Your task to perform on an android device: View the shopping cart on target.com. Search for acer nitro on target.com, select the first entry, add it to the cart, then select checkout. Image 0: 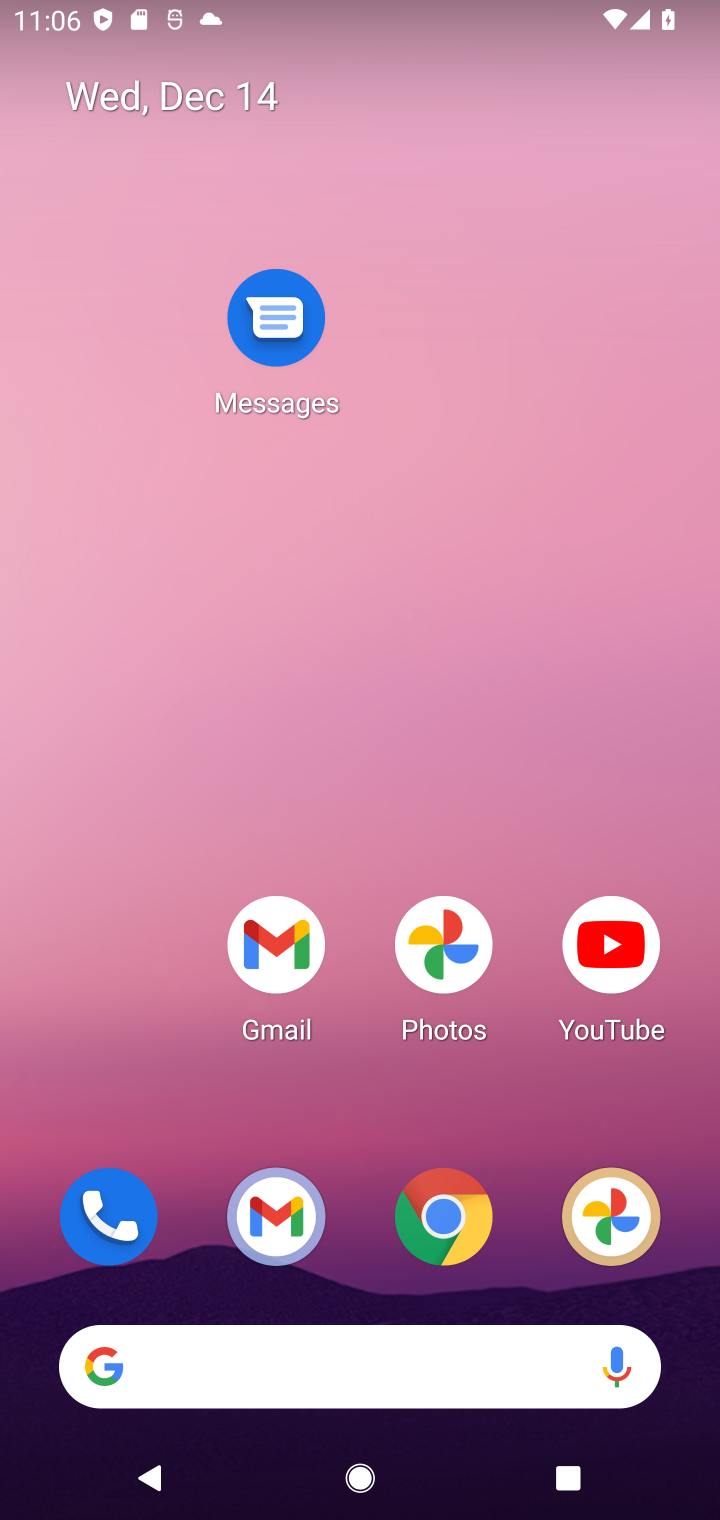
Step 0: drag from (390, 1035) to (351, 493)
Your task to perform on an android device: View the shopping cart on target.com. Search for acer nitro on target.com, select the first entry, add it to the cart, then select checkout. Image 1: 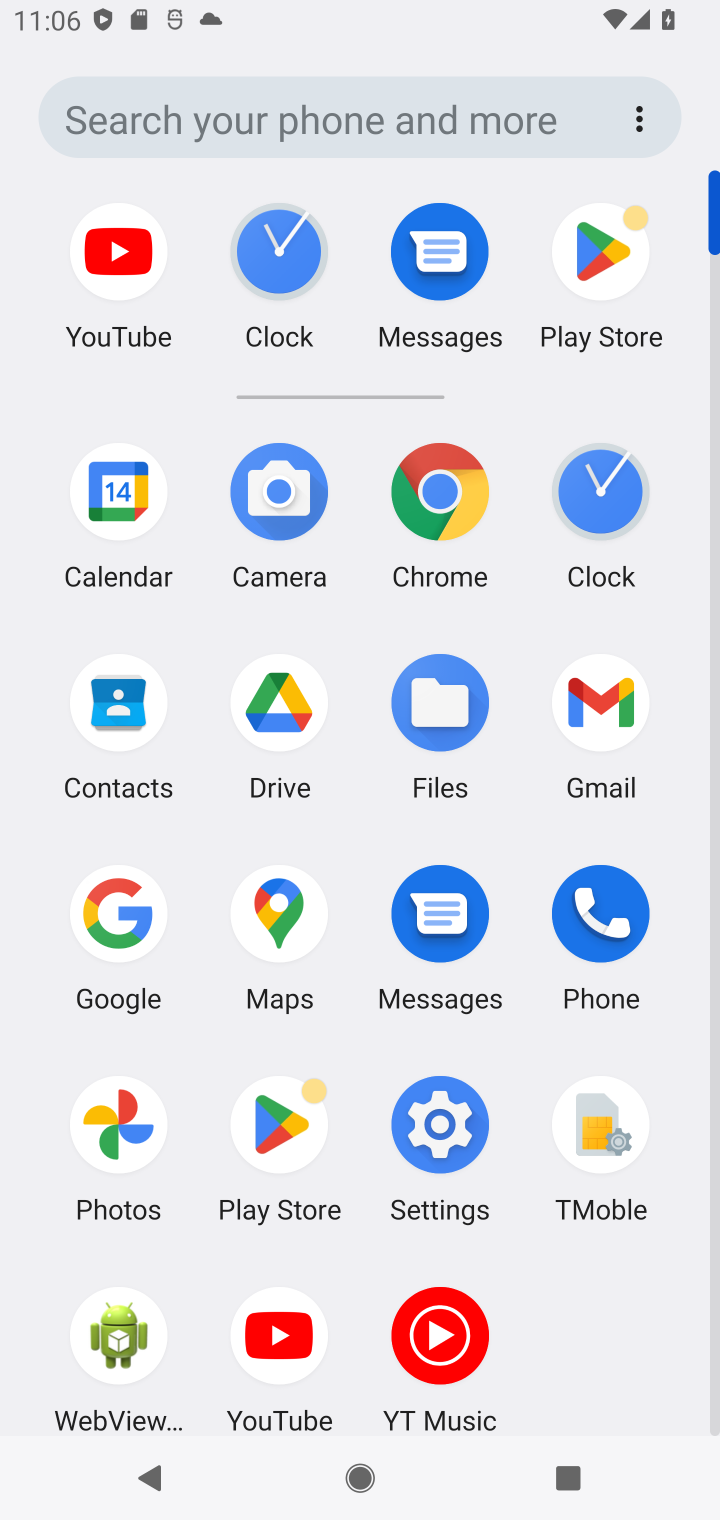
Step 1: click (127, 907)
Your task to perform on an android device: View the shopping cart on target.com. Search for acer nitro on target.com, select the first entry, add it to the cart, then select checkout. Image 2: 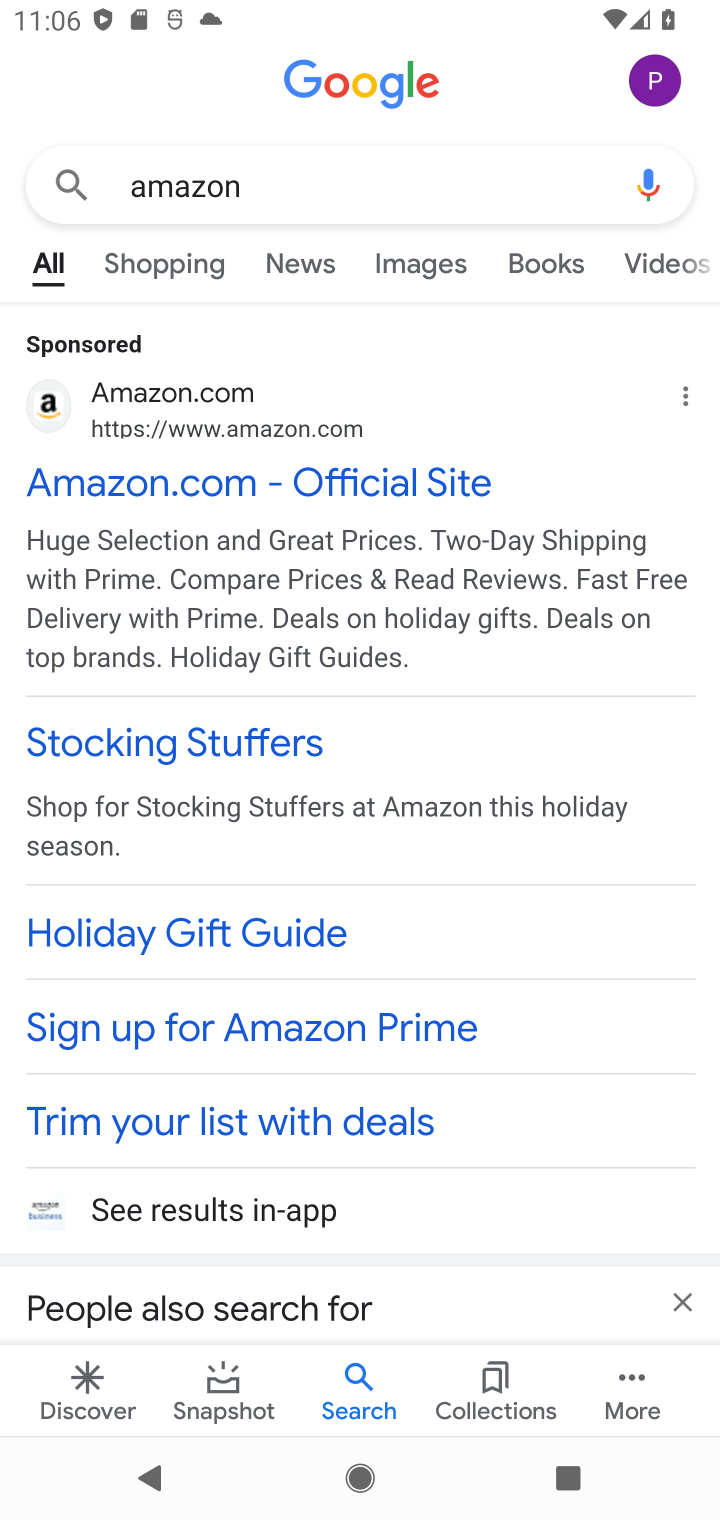
Step 2: click (235, 175)
Your task to perform on an android device: View the shopping cart on target.com. Search for acer nitro on target.com, select the first entry, add it to the cart, then select checkout. Image 3: 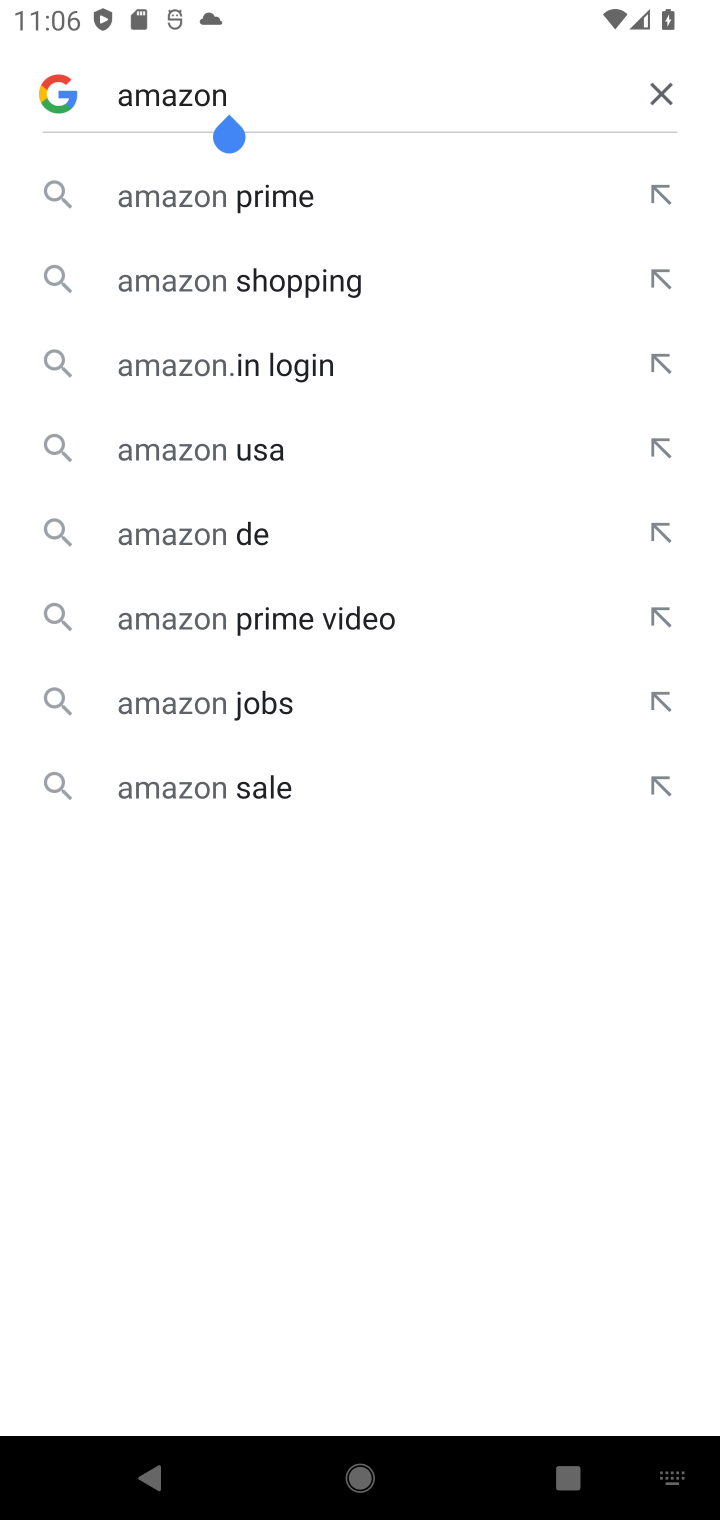
Step 3: click (649, 87)
Your task to perform on an android device: View the shopping cart on target.com. Search for acer nitro on target.com, select the first entry, add it to the cart, then select checkout. Image 4: 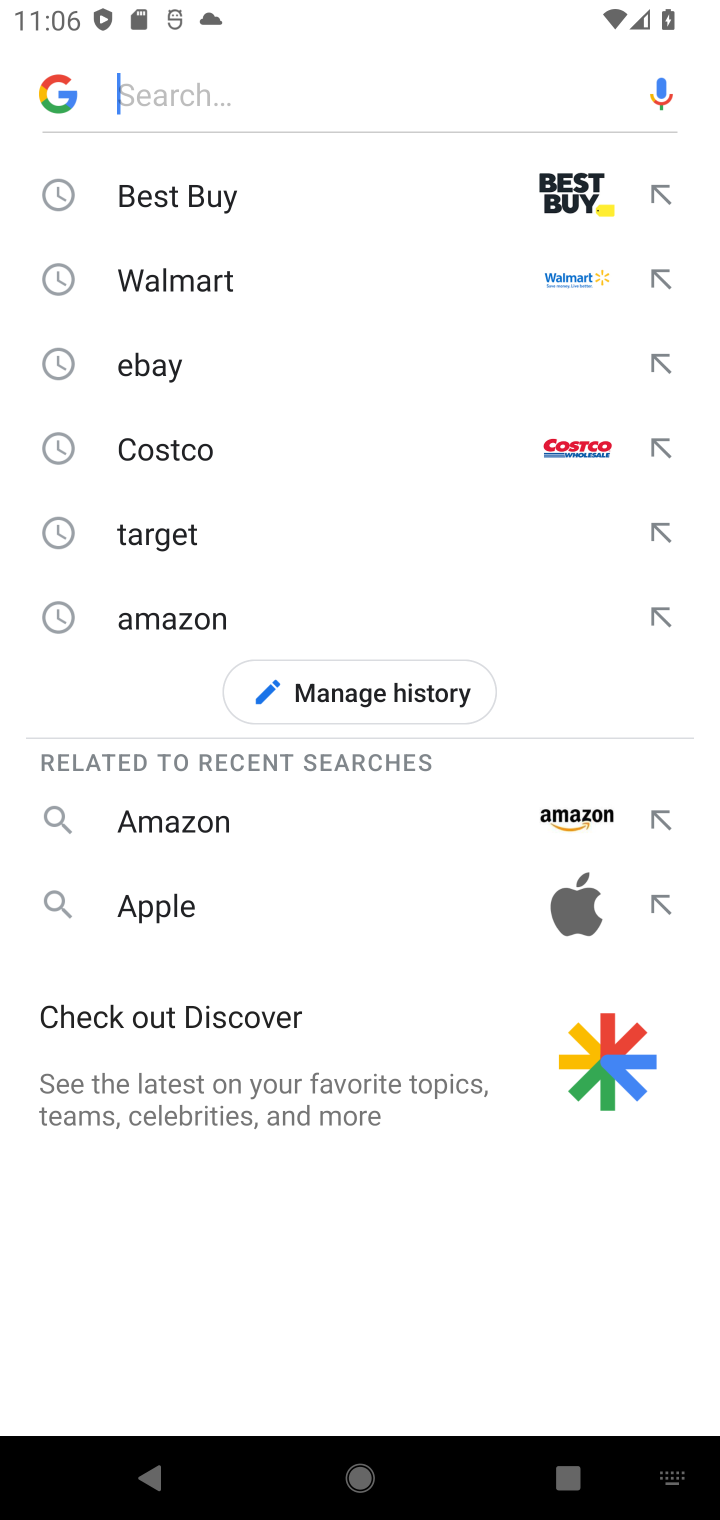
Step 4: click (153, 523)
Your task to perform on an android device: View the shopping cart on target.com. Search for acer nitro on target.com, select the first entry, add it to the cart, then select checkout. Image 5: 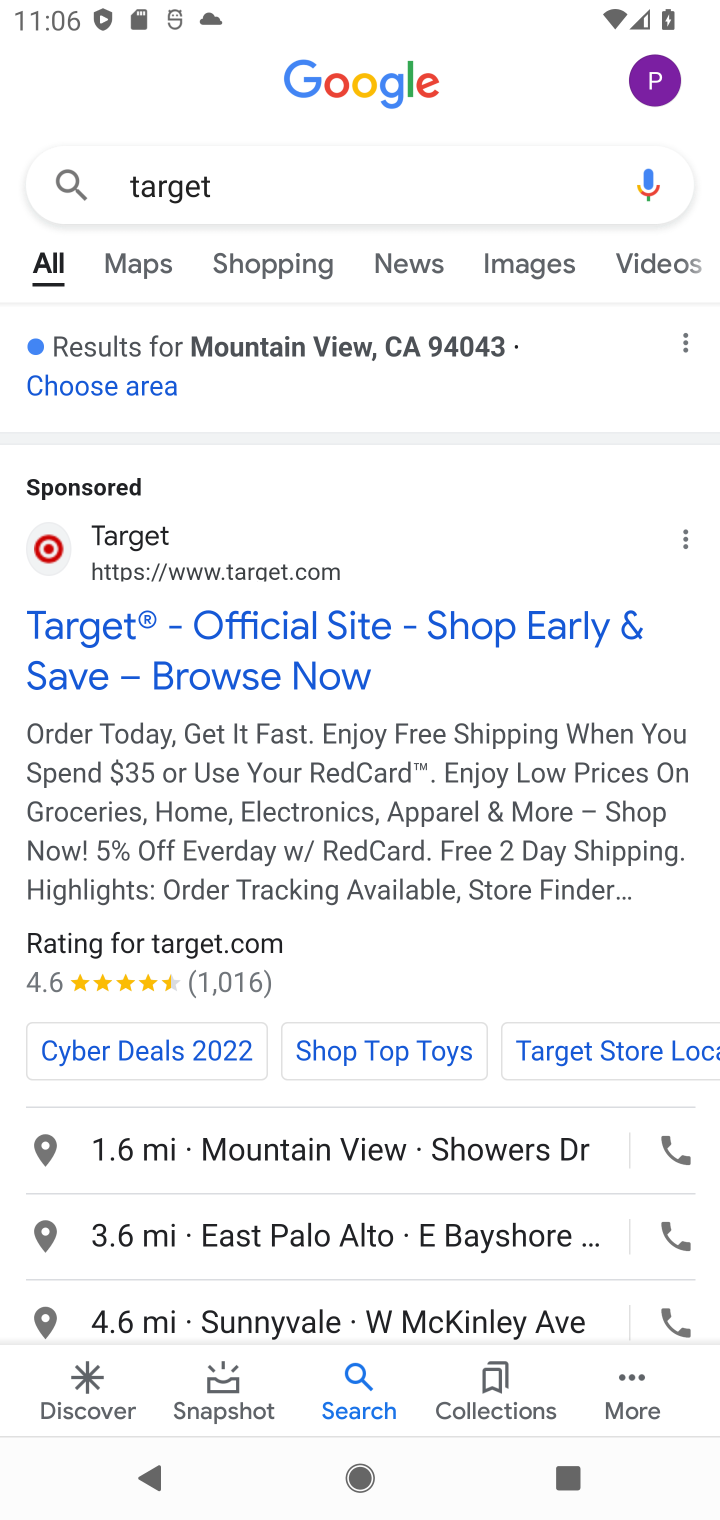
Step 5: click (228, 658)
Your task to perform on an android device: View the shopping cart on target.com. Search for acer nitro on target.com, select the first entry, add it to the cart, then select checkout. Image 6: 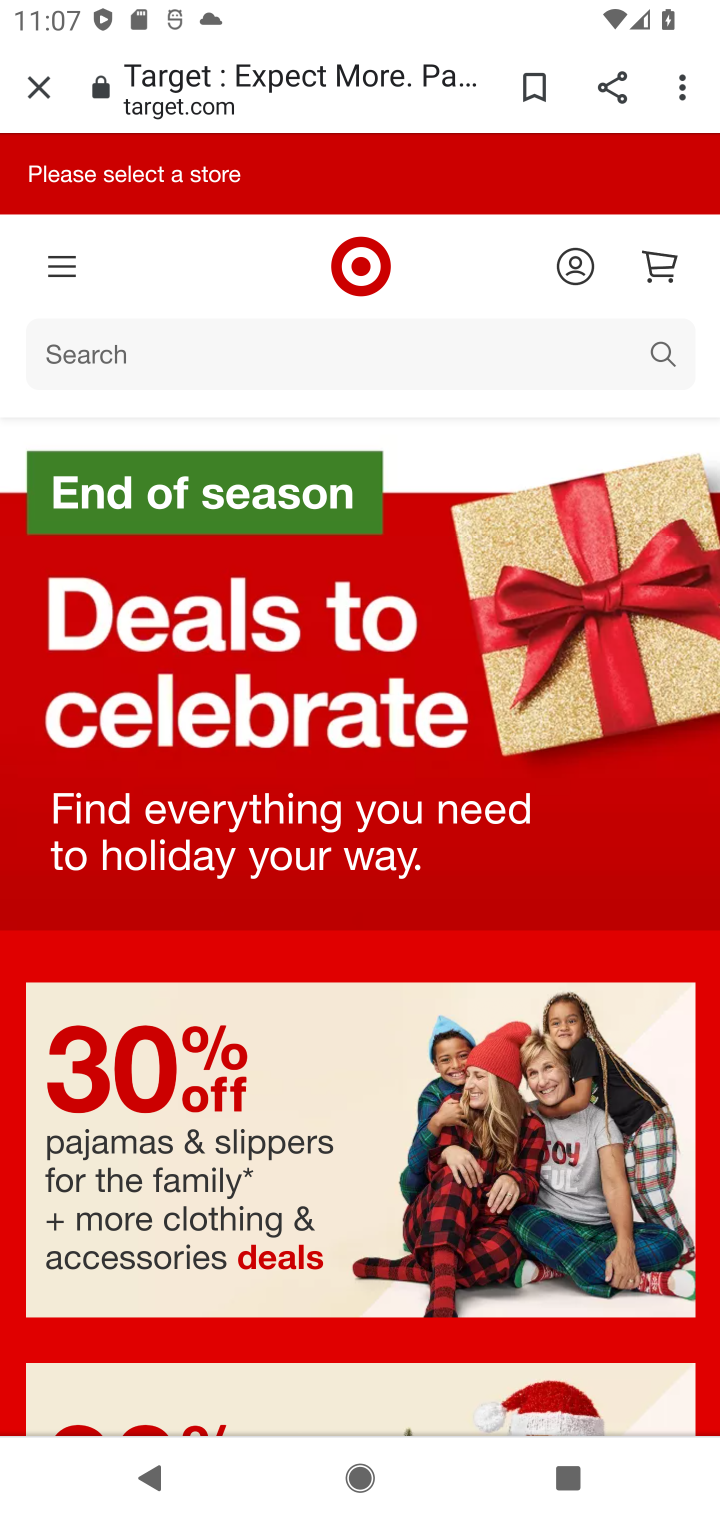
Step 6: click (135, 356)
Your task to perform on an android device: View the shopping cart on target.com. Search for acer nitro on target.com, select the first entry, add it to the cart, then select checkout. Image 7: 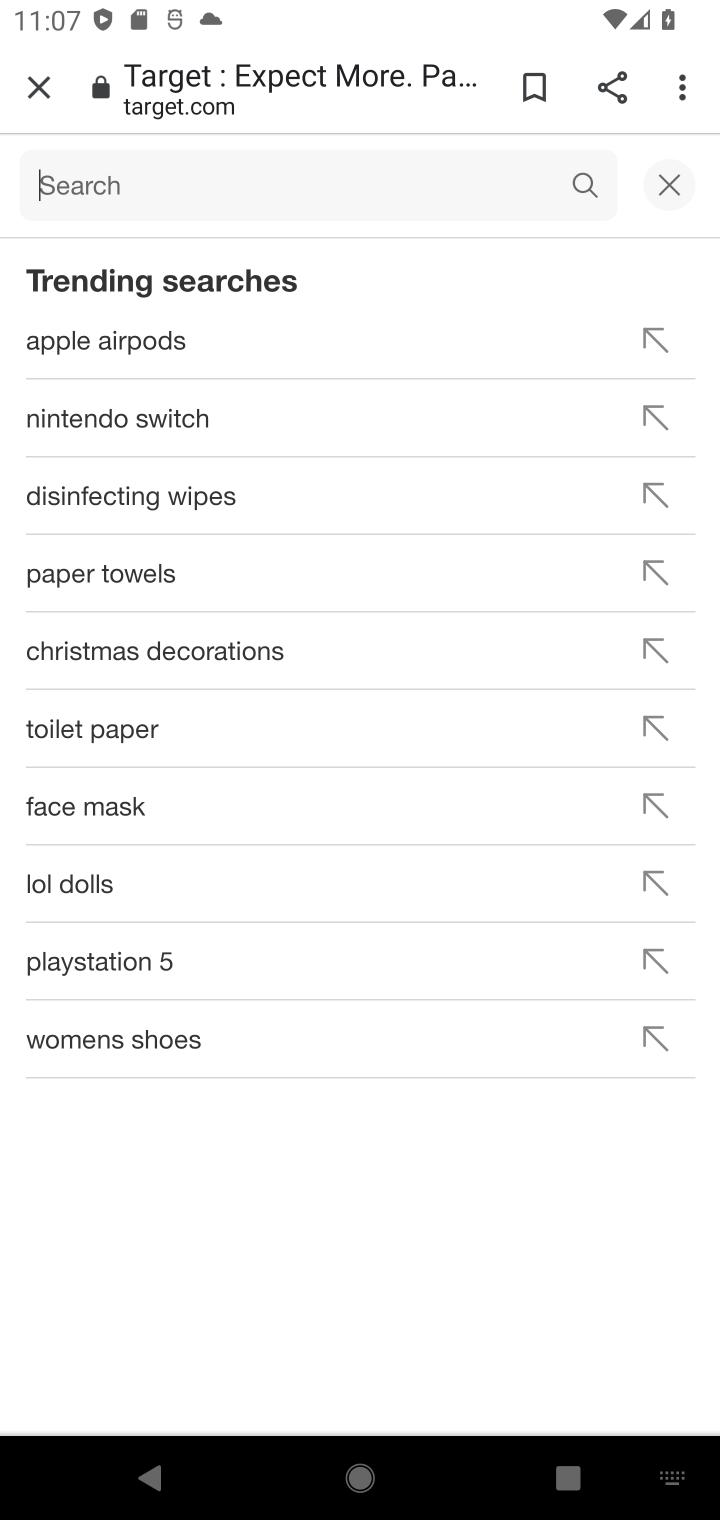
Step 7: type "acer nitro"
Your task to perform on an android device: View the shopping cart on target.com. Search for acer nitro on target.com, select the first entry, add it to the cart, then select checkout. Image 8: 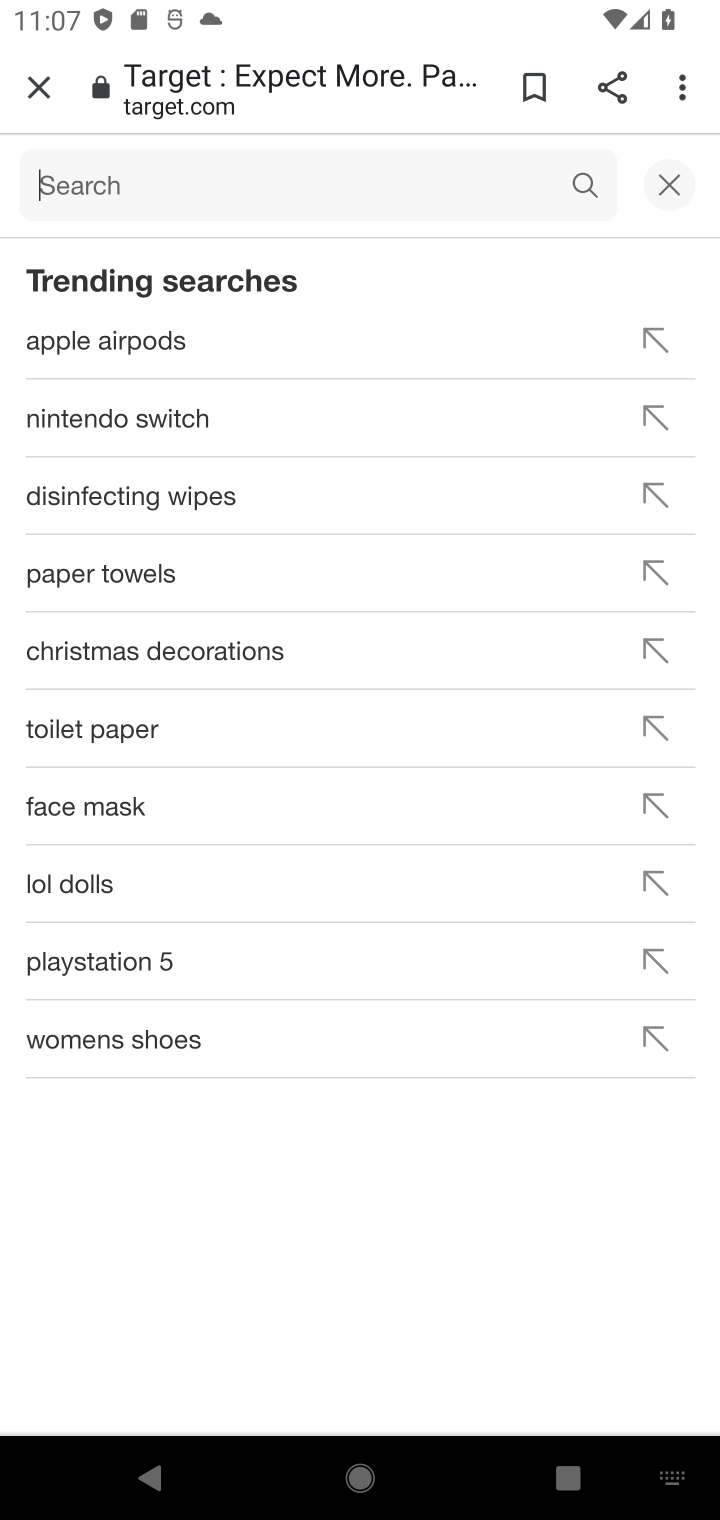
Step 8: click (578, 179)
Your task to perform on an android device: View the shopping cart on target.com. Search for acer nitro on target.com, select the first entry, add it to the cart, then select checkout. Image 9: 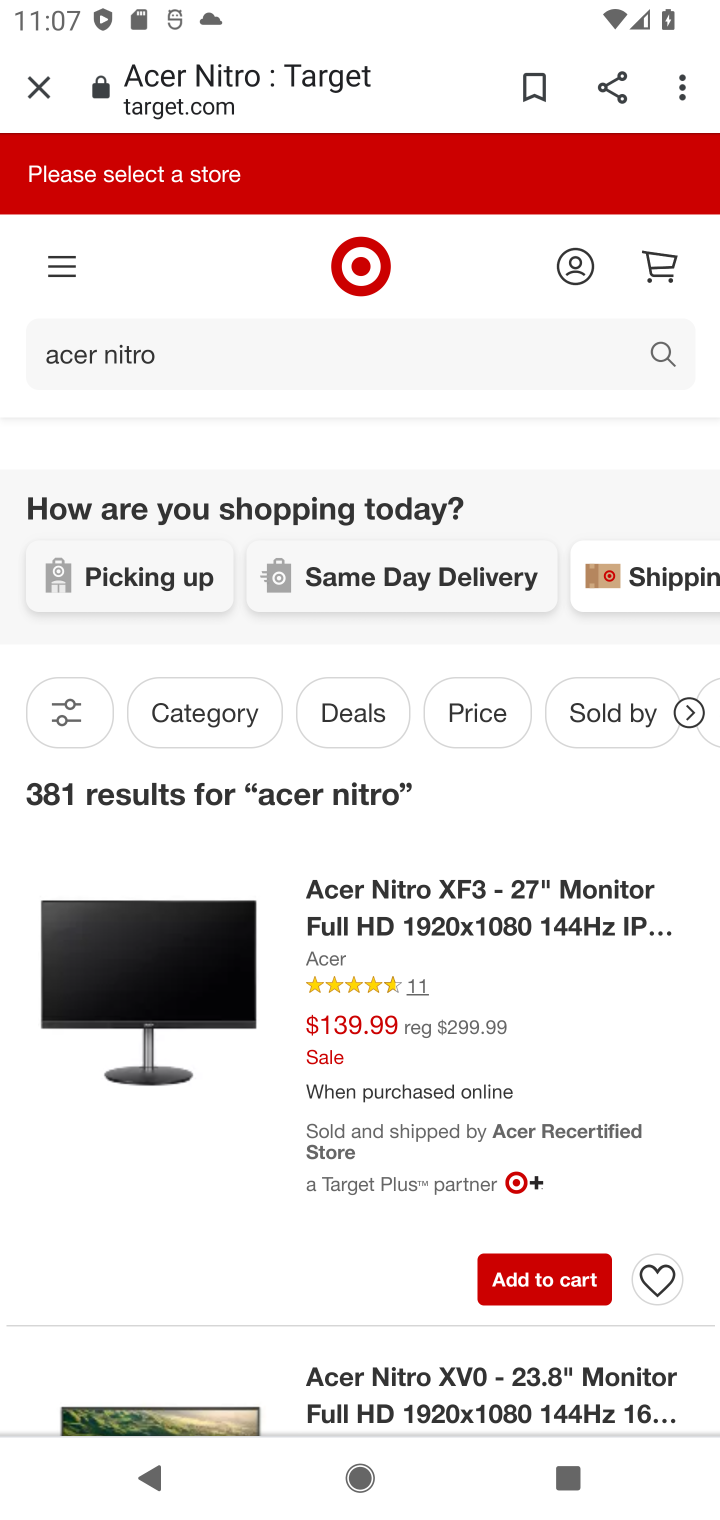
Step 9: click (570, 1285)
Your task to perform on an android device: View the shopping cart on target.com. Search for acer nitro on target.com, select the first entry, add it to the cart, then select checkout. Image 10: 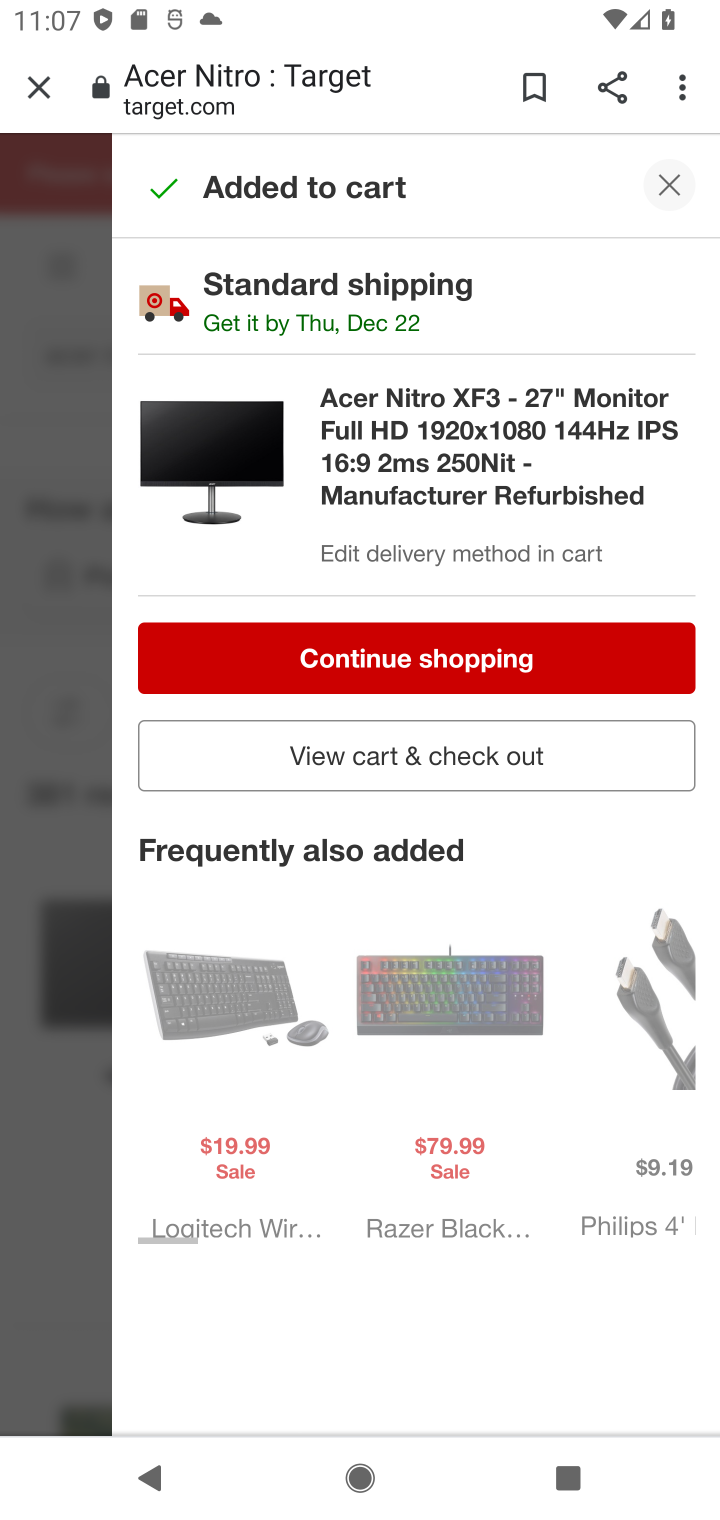
Step 10: click (657, 185)
Your task to perform on an android device: View the shopping cart on target.com. Search for acer nitro on target.com, select the first entry, add it to the cart, then select checkout. Image 11: 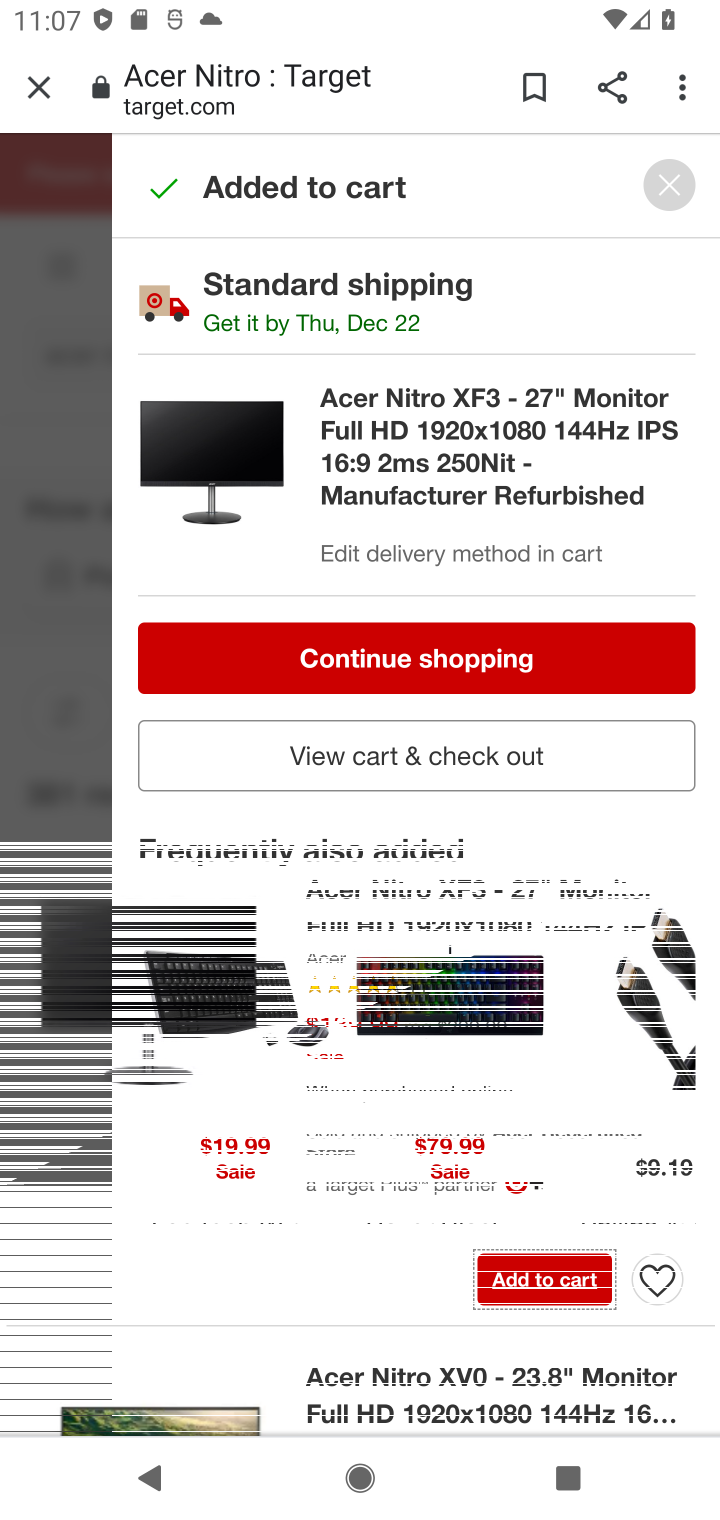
Step 11: click (677, 186)
Your task to perform on an android device: View the shopping cart on target.com. Search for acer nitro on target.com, select the first entry, add it to the cart, then select checkout. Image 12: 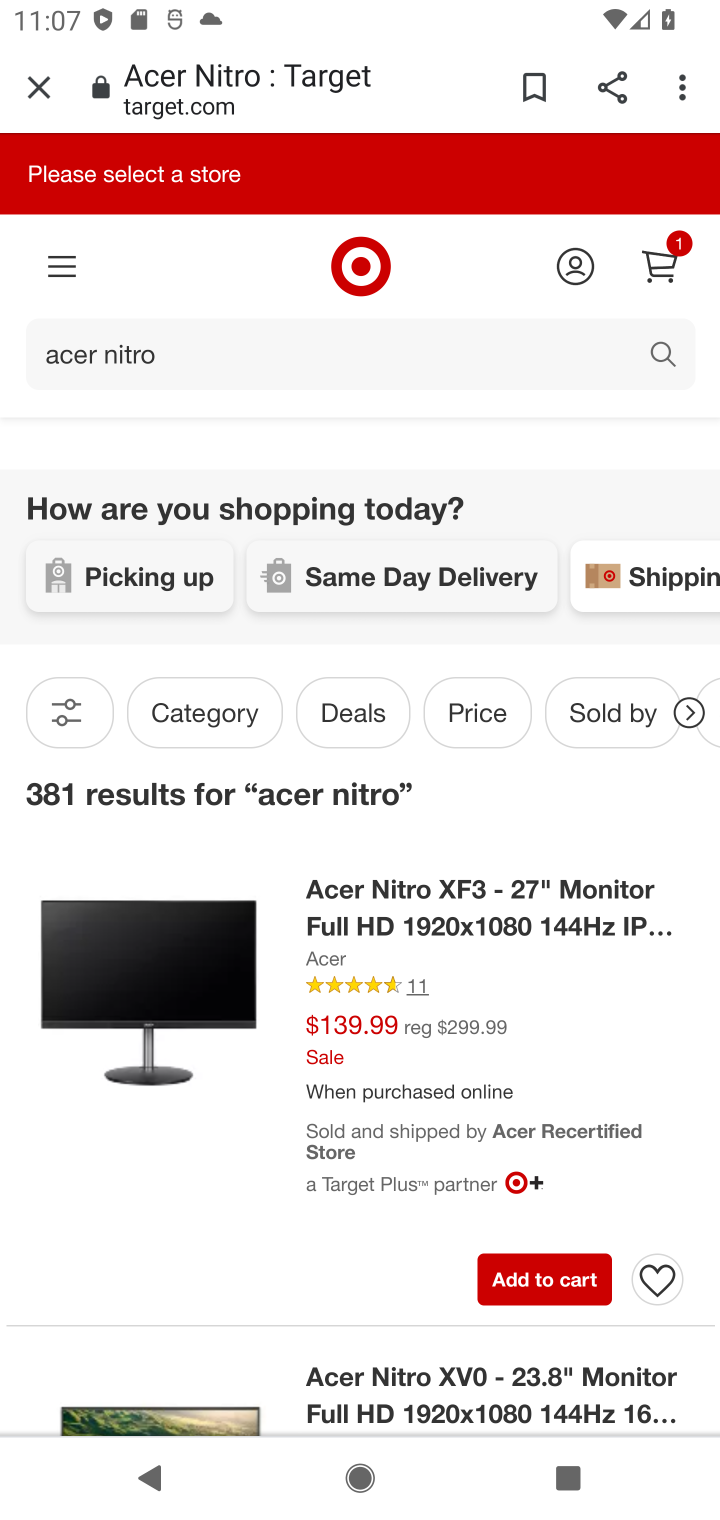
Step 12: click (687, 252)
Your task to perform on an android device: View the shopping cart on target.com. Search for acer nitro on target.com, select the first entry, add it to the cart, then select checkout. Image 13: 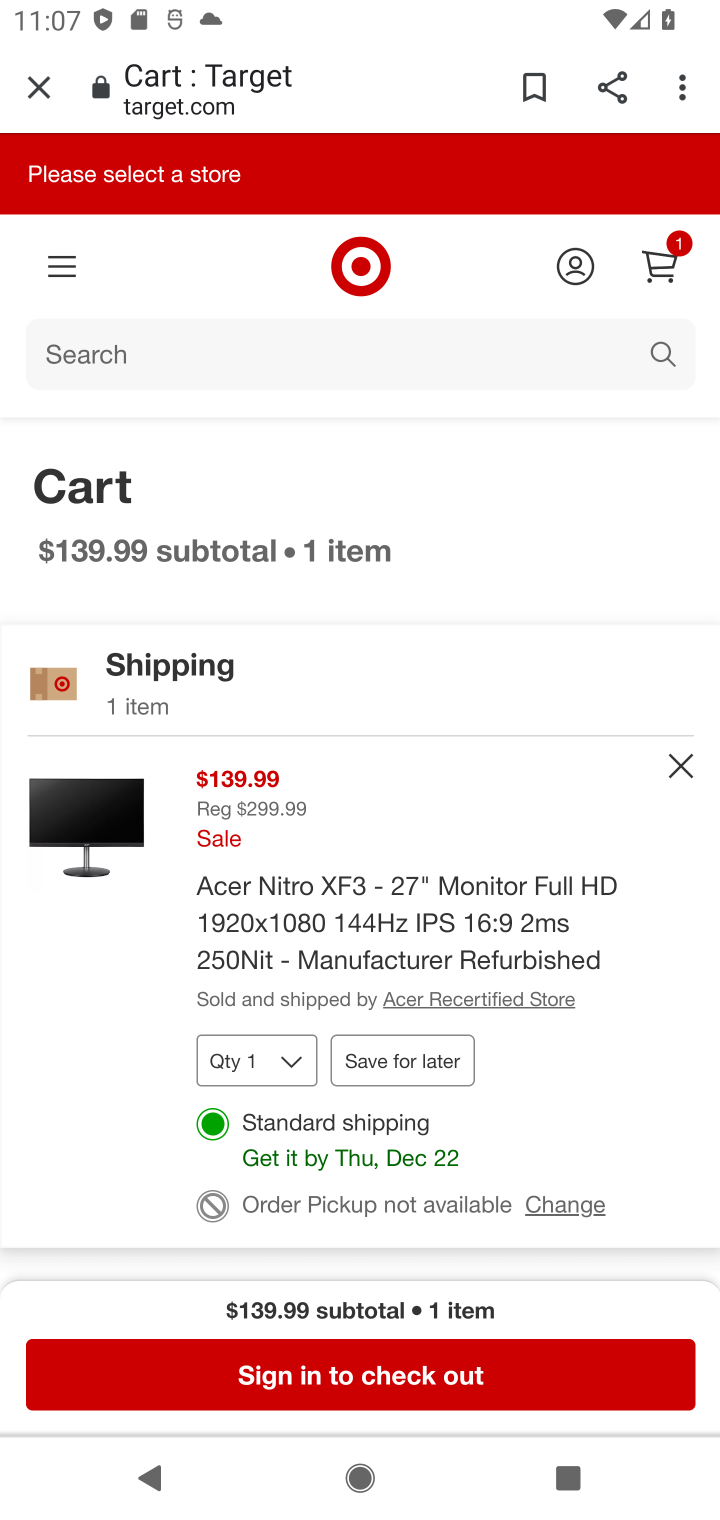
Step 13: click (374, 1378)
Your task to perform on an android device: View the shopping cart on target.com. Search for acer nitro on target.com, select the first entry, add it to the cart, then select checkout. Image 14: 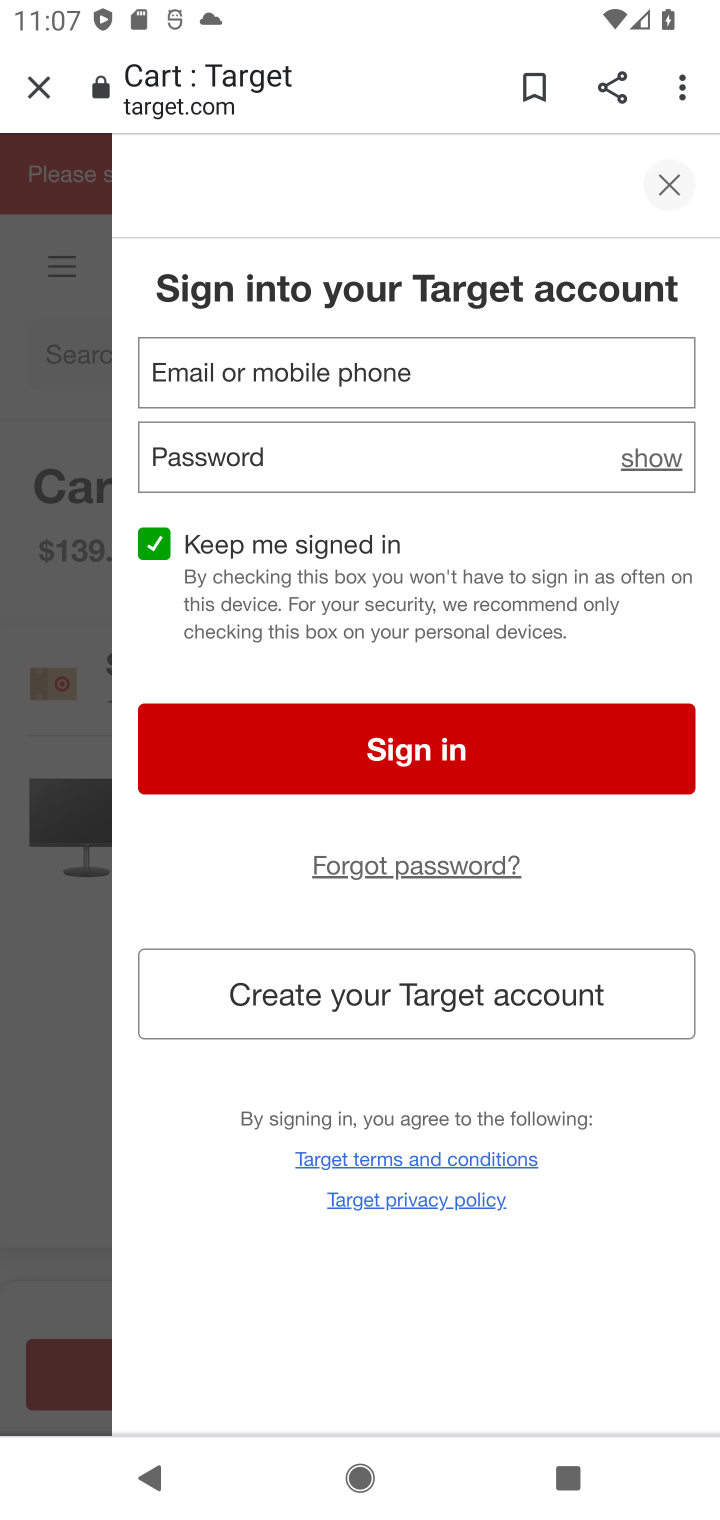
Step 14: task complete